Your task to perform on an android device: see sites visited before in the chrome app Image 0: 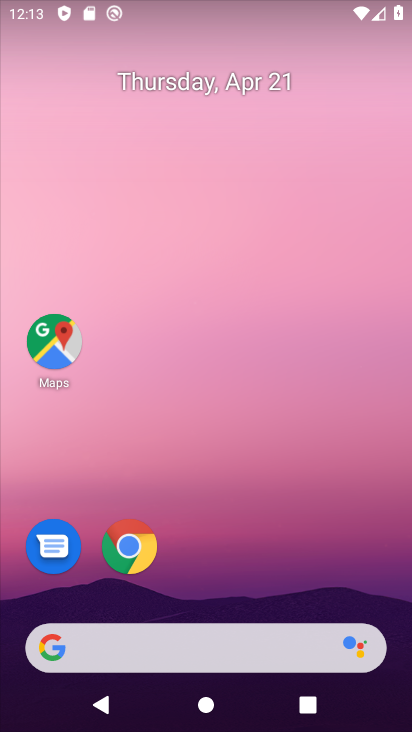
Step 0: click (124, 542)
Your task to perform on an android device: see sites visited before in the chrome app Image 1: 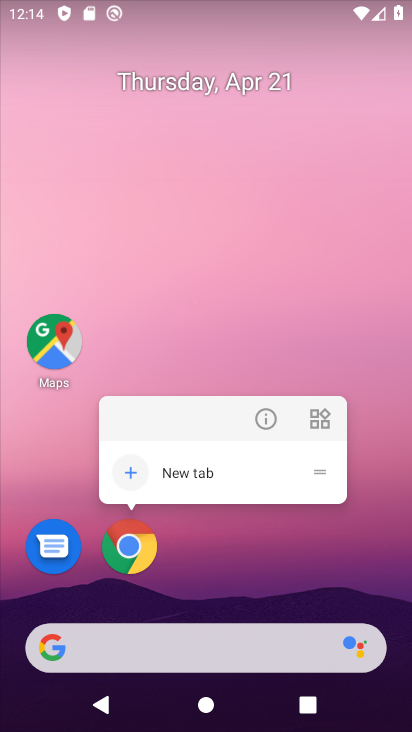
Step 1: click (147, 559)
Your task to perform on an android device: see sites visited before in the chrome app Image 2: 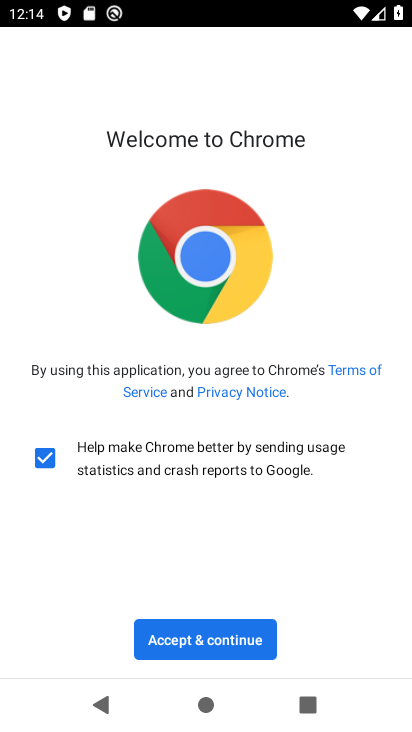
Step 2: click (210, 656)
Your task to perform on an android device: see sites visited before in the chrome app Image 3: 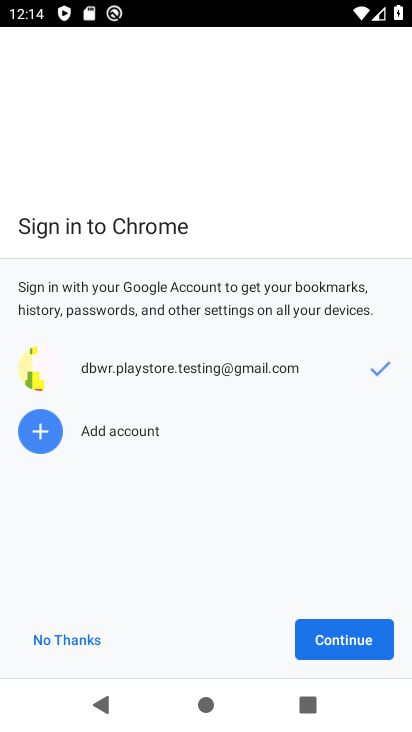
Step 3: click (365, 638)
Your task to perform on an android device: see sites visited before in the chrome app Image 4: 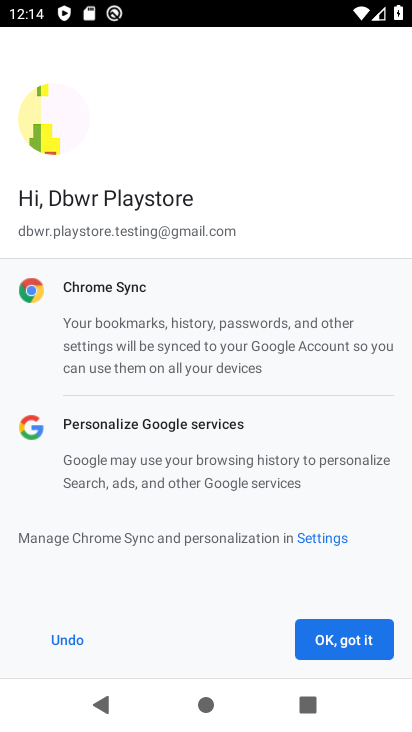
Step 4: click (350, 643)
Your task to perform on an android device: see sites visited before in the chrome app Image 5: 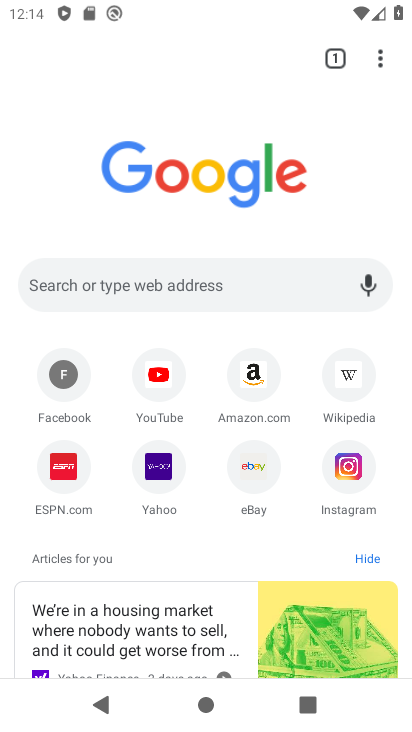
Step 5: click (381, 66)
Your task to perform on an android device: see sites visited before in the chrome app Image 6: 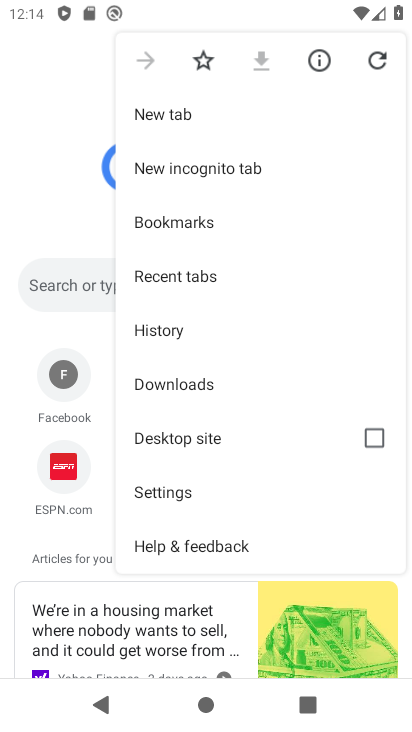
Step 6: click (200, 331)
Your task to perform on an android device: see sites visited before in the chrome app Image 7: 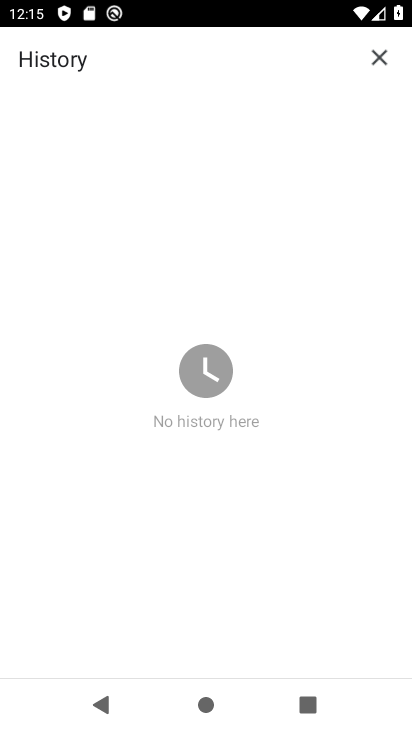
Step 7: task complete